Your task to perform on an android device: Go to privacy settings Image 0: 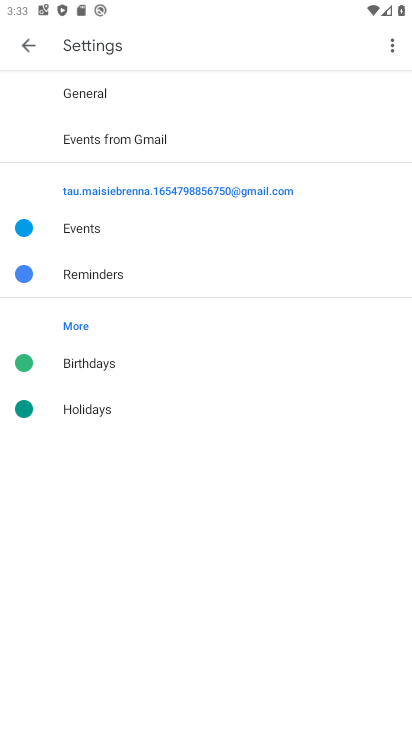
Step 0: press home button
Your task to perform on an android device: Go to privacy settings Image 1: 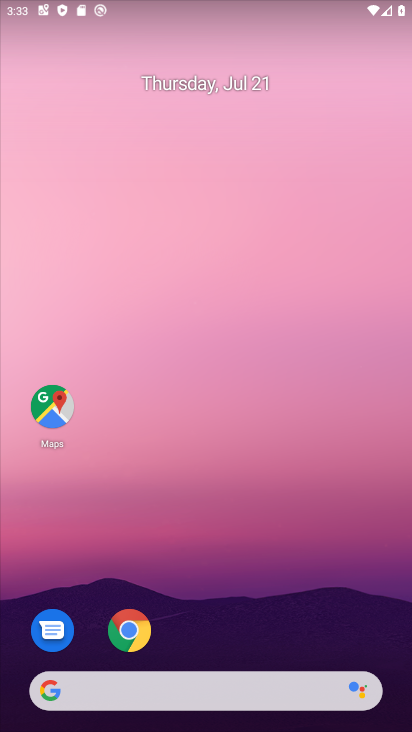
Step 1: drag from (213, 668) to (284, 37)
Your task to perform on an android device: Go to privacy settings Image 2: 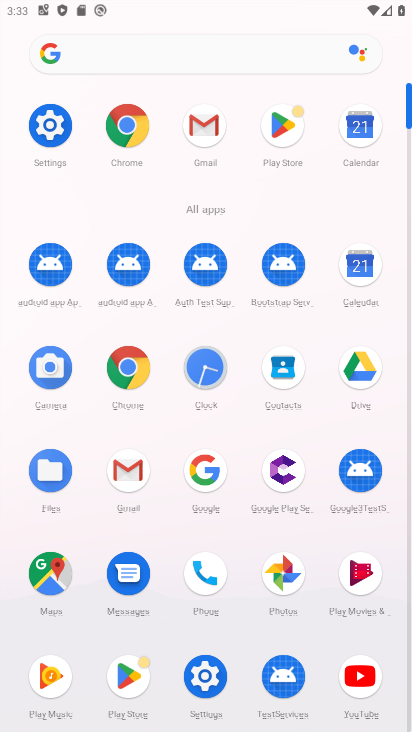
Step 2: click (208, 677)
Your task to perform on an android device: Go to privacy settings Image 3: 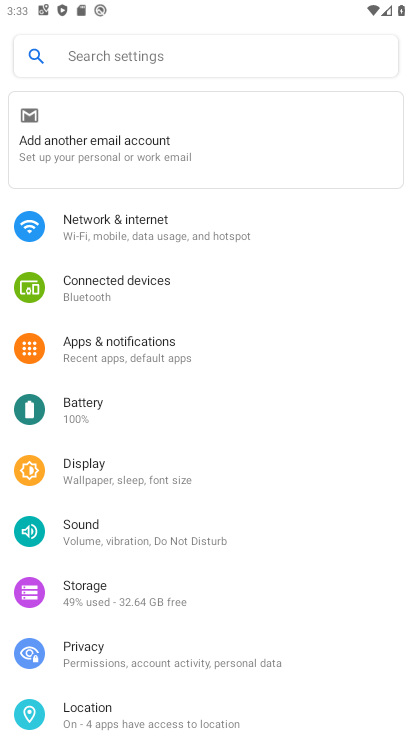
Step 3: click (101, 645)
Your task to perform on an android device: Go to privacy settings Image 4: 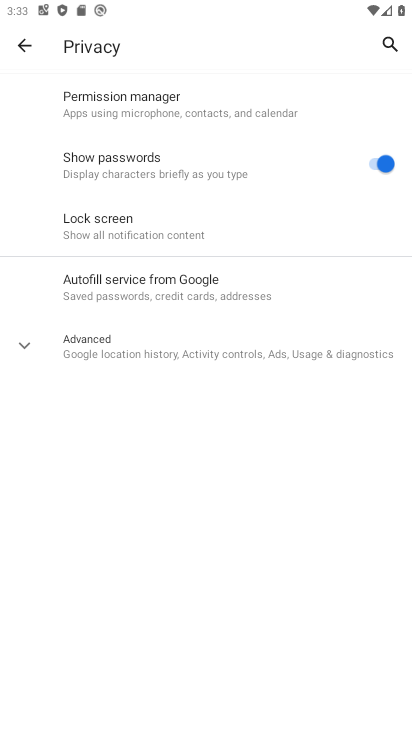
Step 4: click (104, 328)
Your task to perform on an android device: Go to privacy settings Image 5: 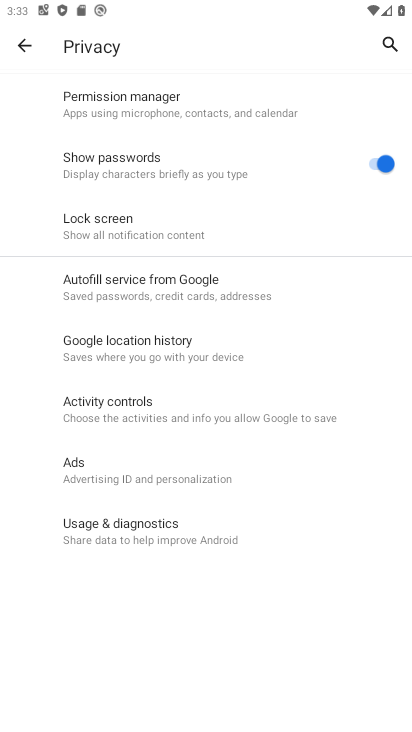
Step 5: task complete